Your task to perform on an android device: Open Amazon Image 0: 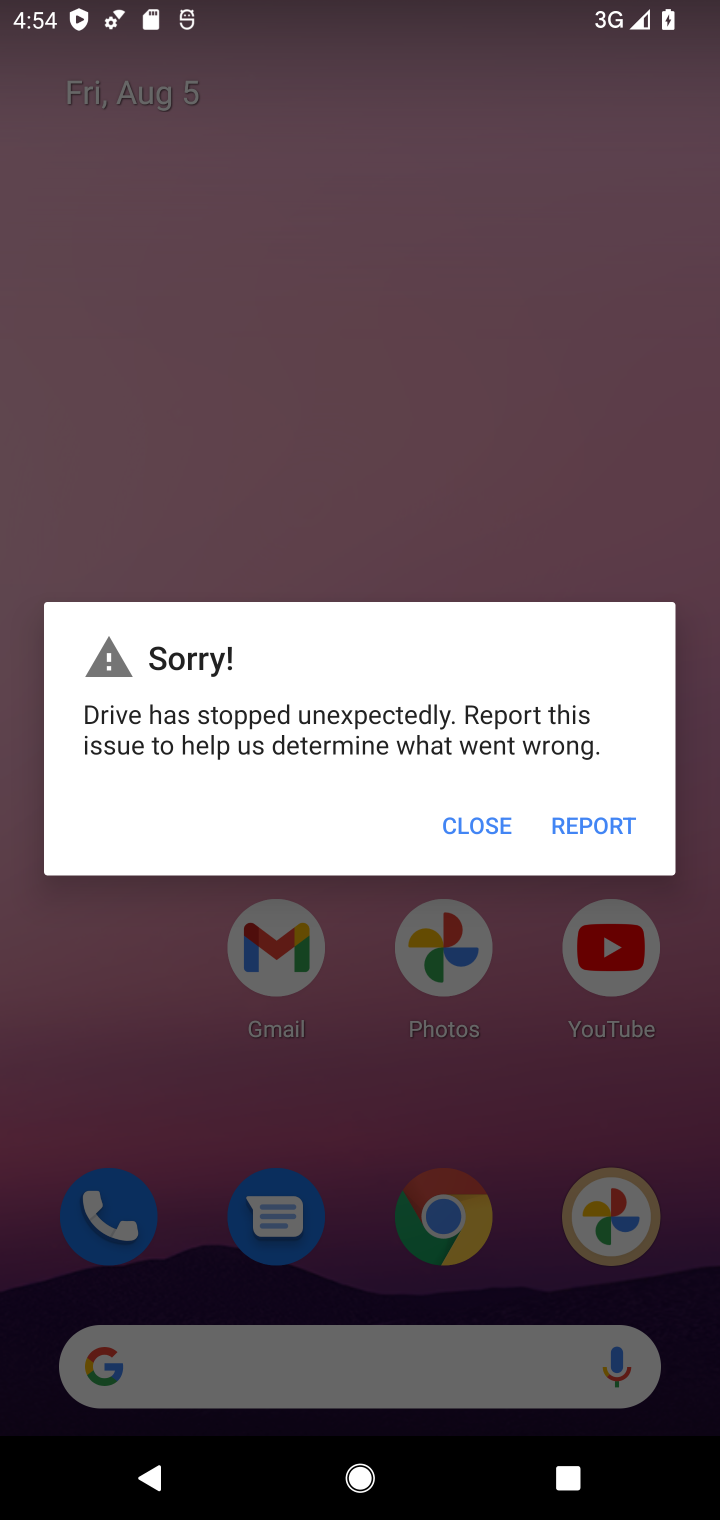
Step 0: press back button
Your task to perform on an android device: Open Amazon Image 1: 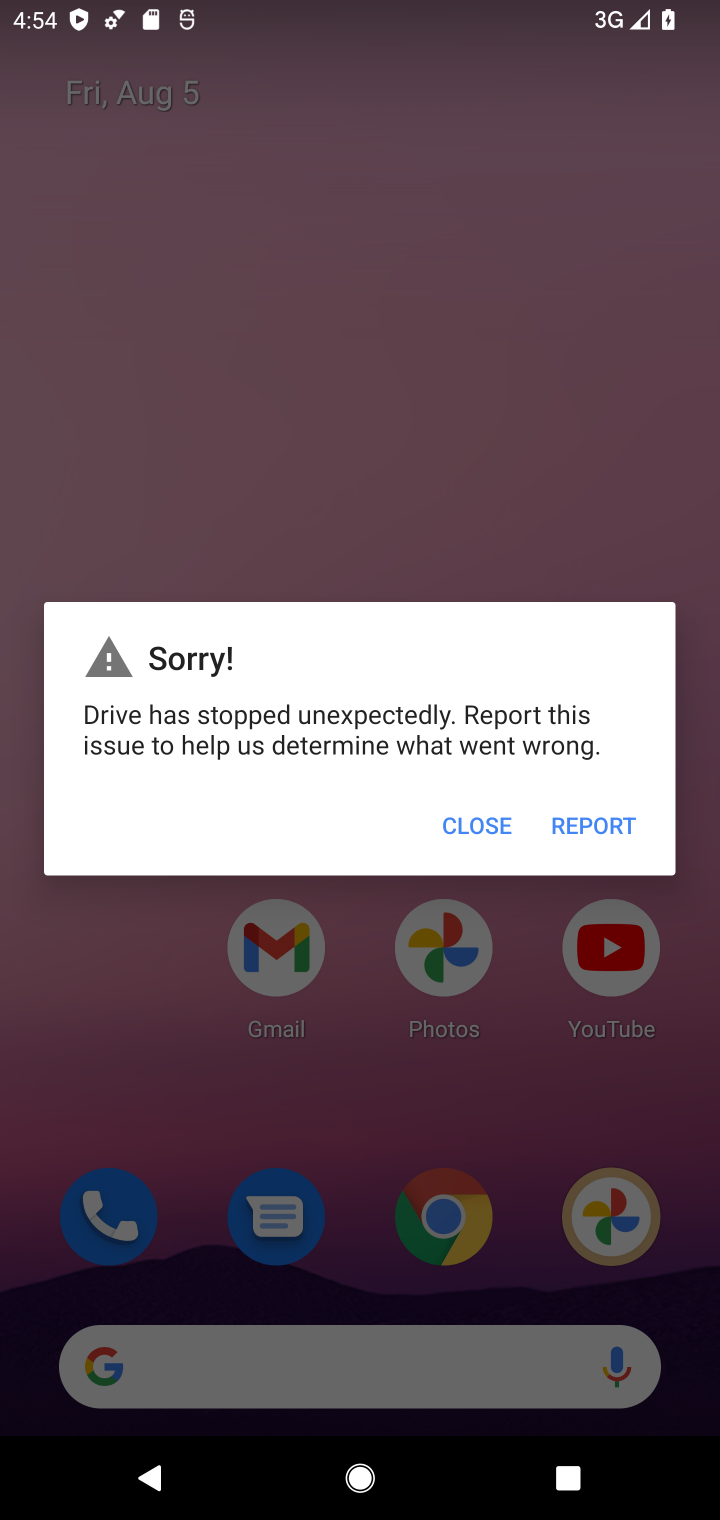
Step 1: click (469, 829)
Your task to perform on an android device: Open Amazon Image 2: 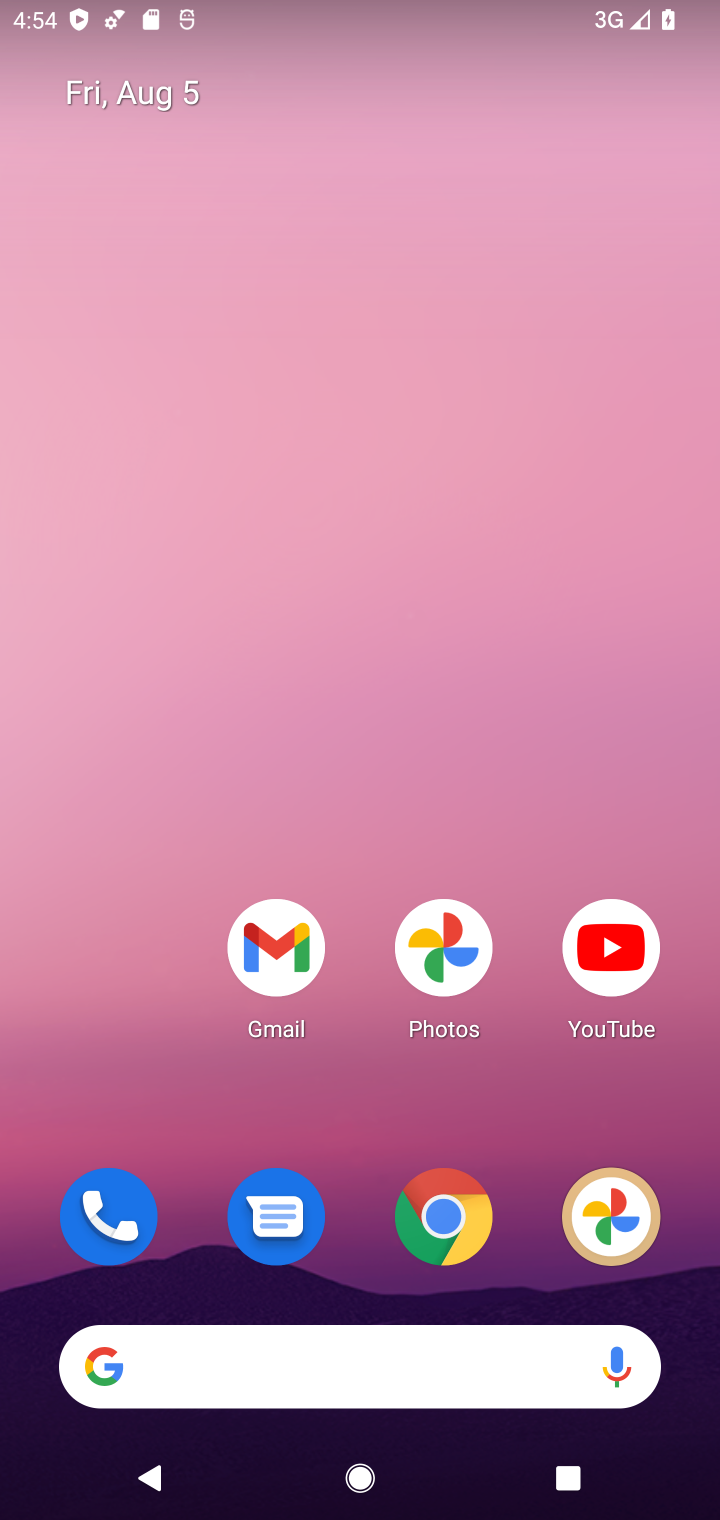
Step 2: click (428, 1204)
Your task to perform on an android device: Open Amazon Image 3: 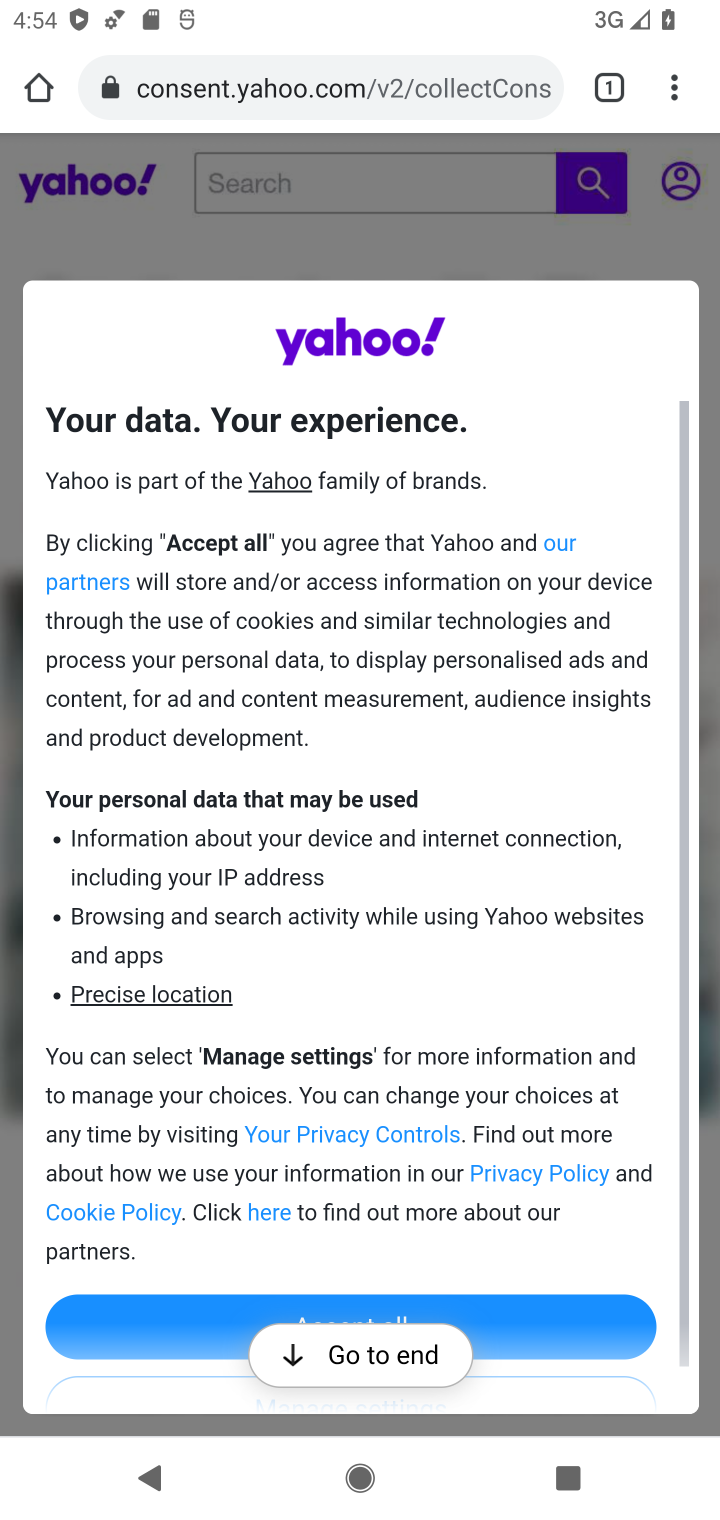
Step 3: click (431, 95)
Your task to perform on an android device: Open Amazon Image 4: 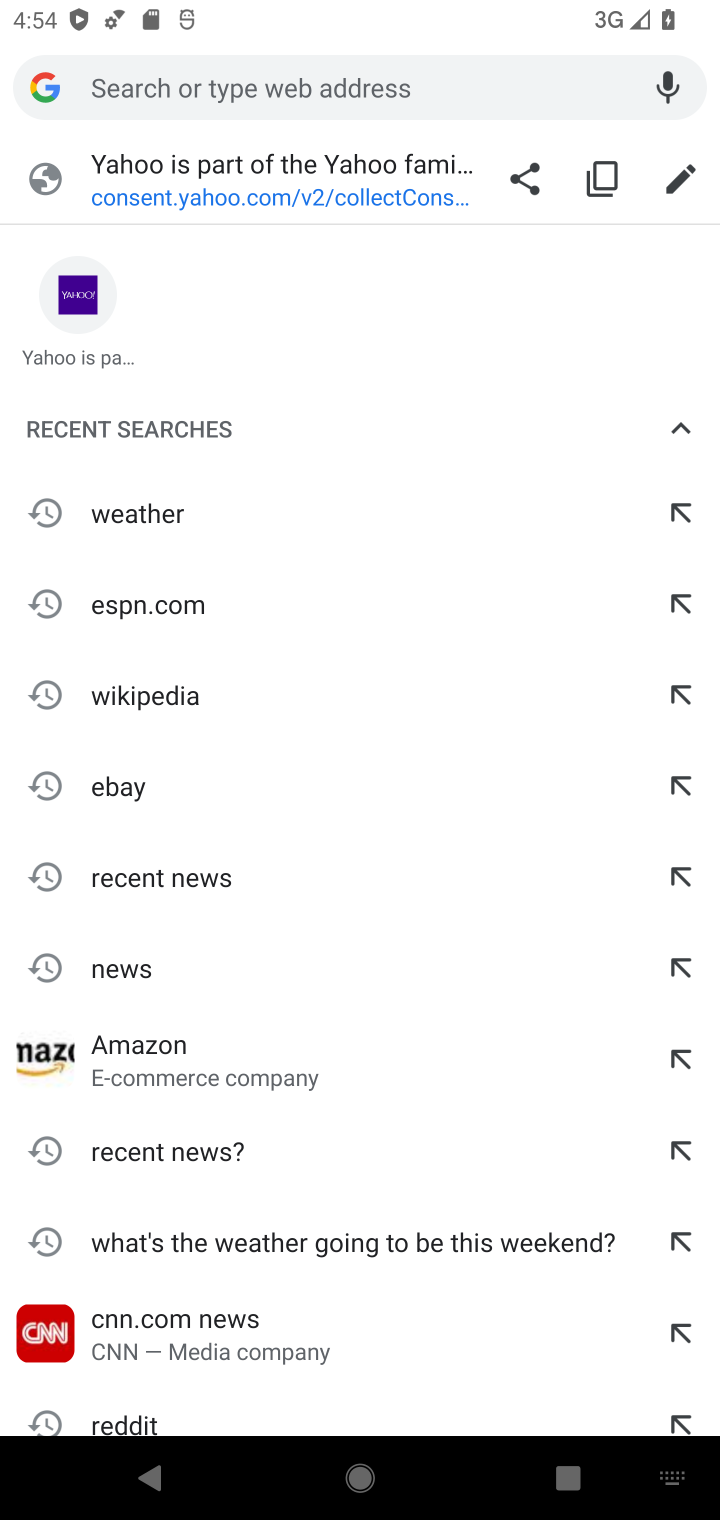
Step 4: type "amazon"
Your task to perform on an android device: Open Amazon Image 5: 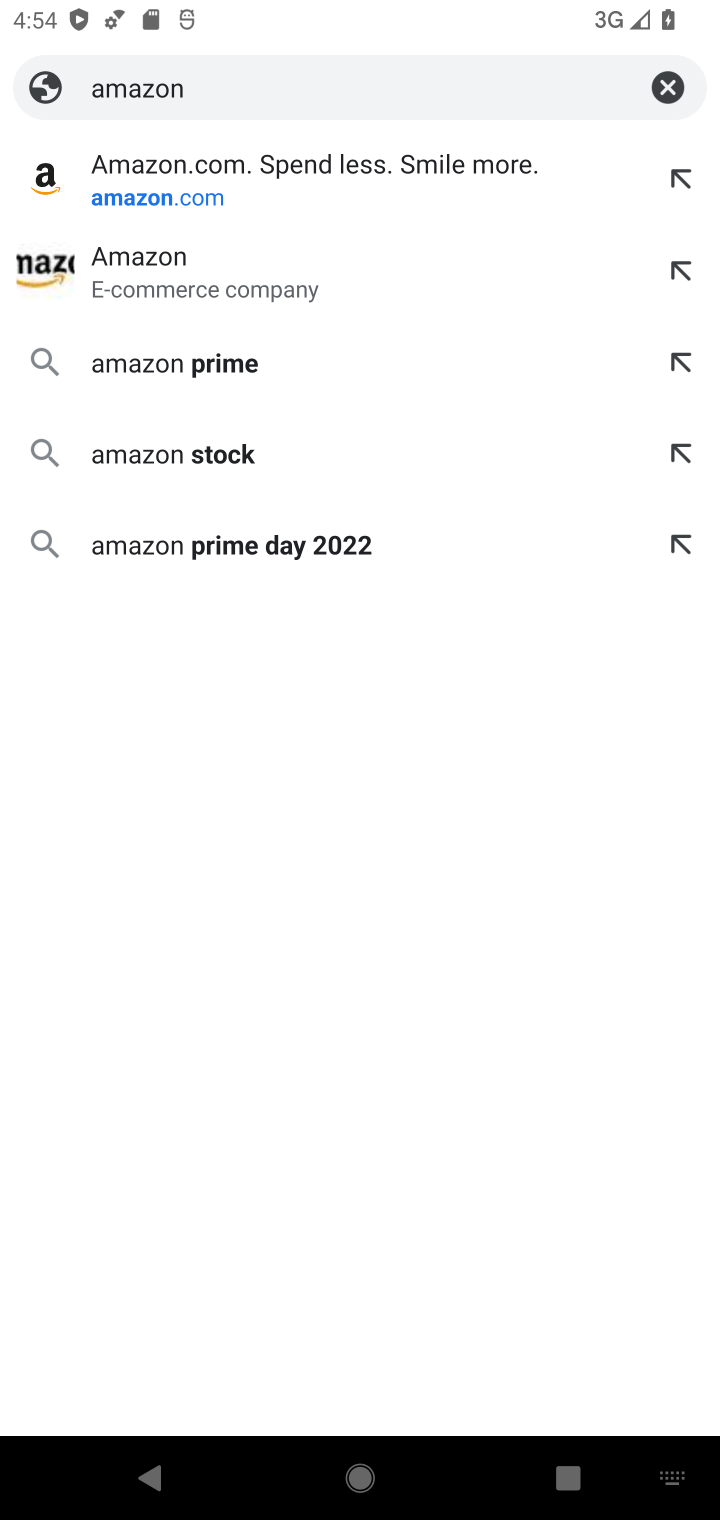
Step 5: click (260, 202)
Your task to perform on an android device: Open Amazon Image 6: 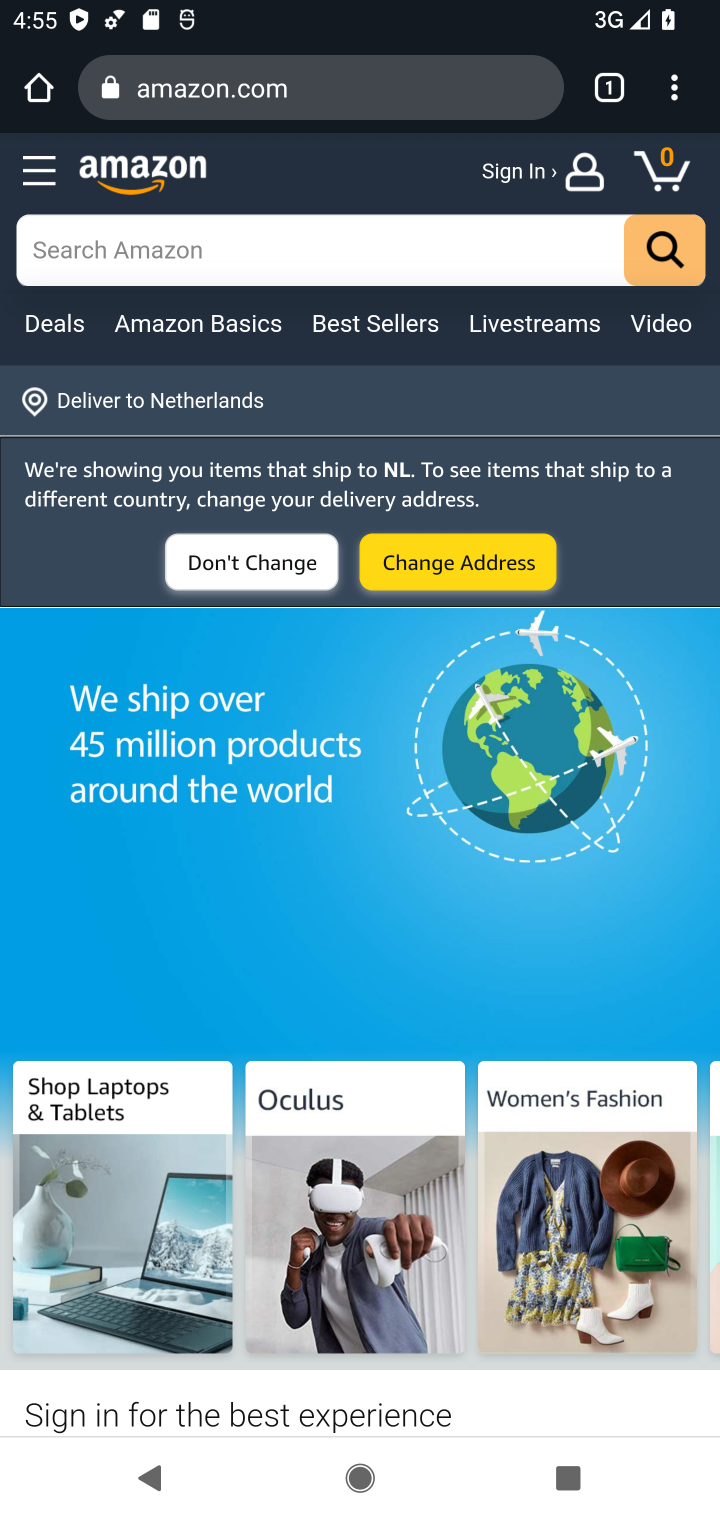
Step 6: task complete